Your task to perform on an android device: stop showing notifications on the lock screen Image 0: 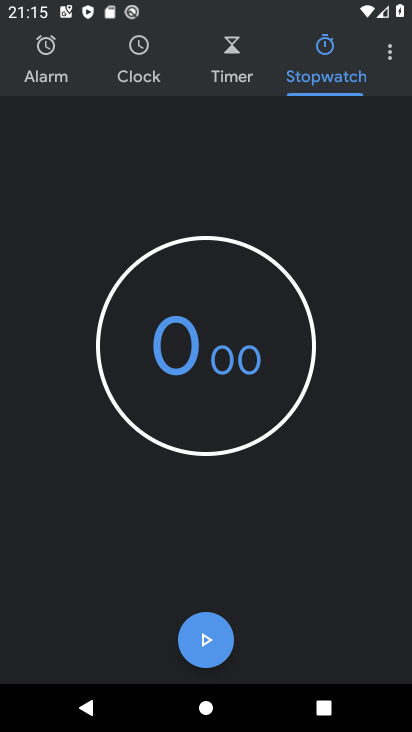
Step 0: press home button
Your task to perform on an android device: stop showing notifications on the lock screen Image 1: 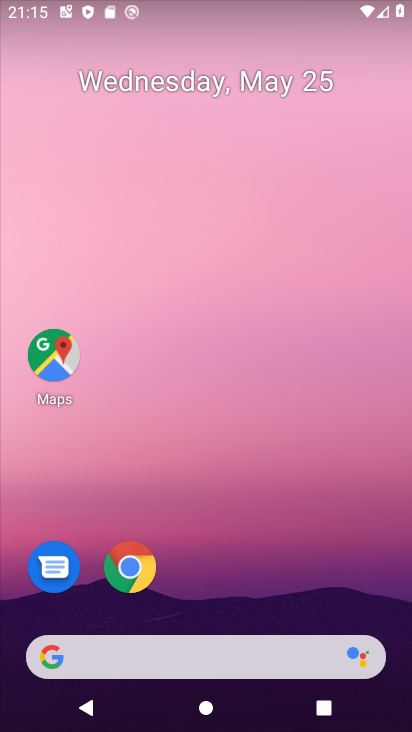
Step 1: drag from (191, 542) to (206, 67)
Your task to perform on an android device: stop showing notifications on the lock screen Image 2: 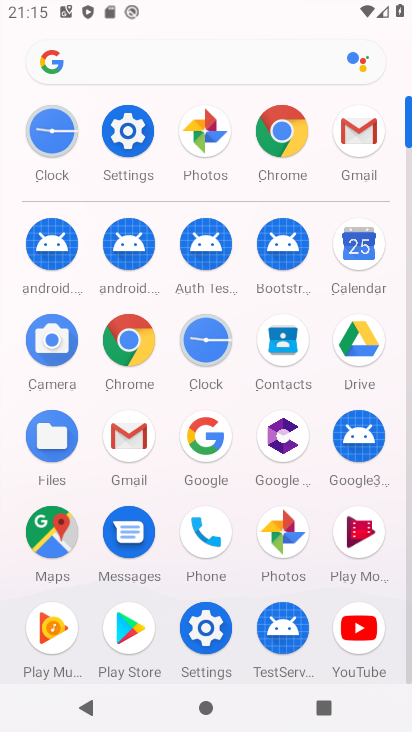
Step 2: click (145, 115)
Your task to perform on an android device: stop showing notifications on the lock screen Image 3: 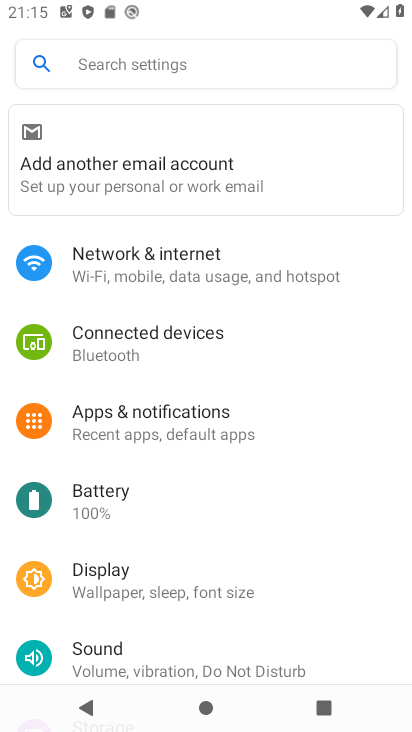
Step 3: click (142, 406)
Your task to perform on an android device: stop showing notifications on the lock screen Image 4: 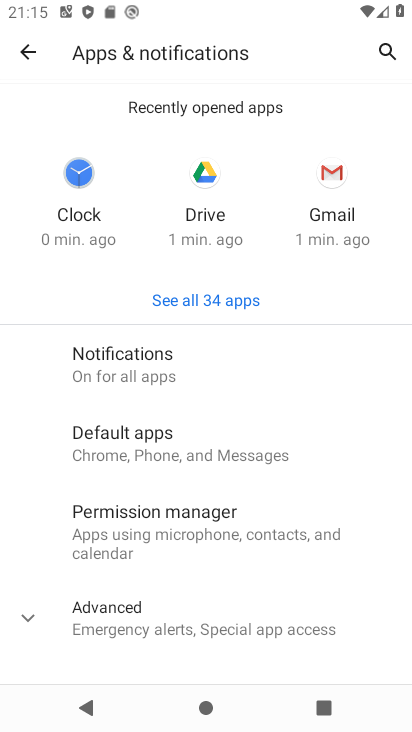
Step 4: click (158, 359)
Your task to perform on an android device: stop showing notifications on the lock screen Image 5: 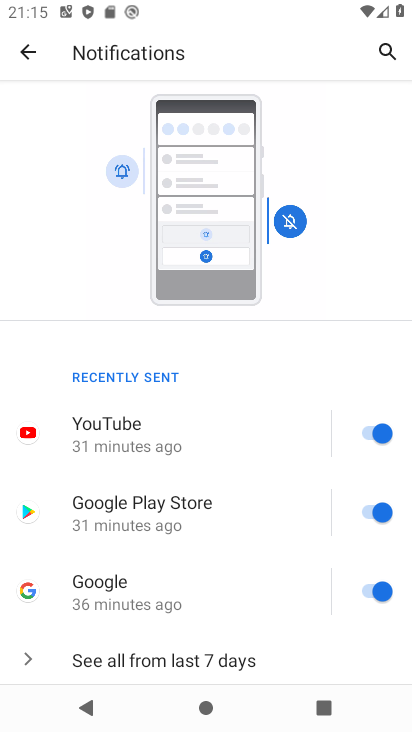
Step 5: drag from (183, 529) to (240, 215)
Your task to perform on an android device: stop showing notifications on the lock screen Image 6: 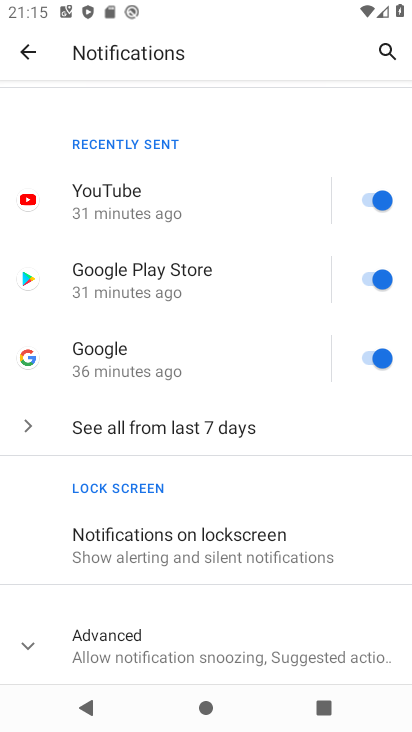
Step 6: click (212, 537)
Your task to perform on an android device: stop showing notifications on the lock screen Image 7: 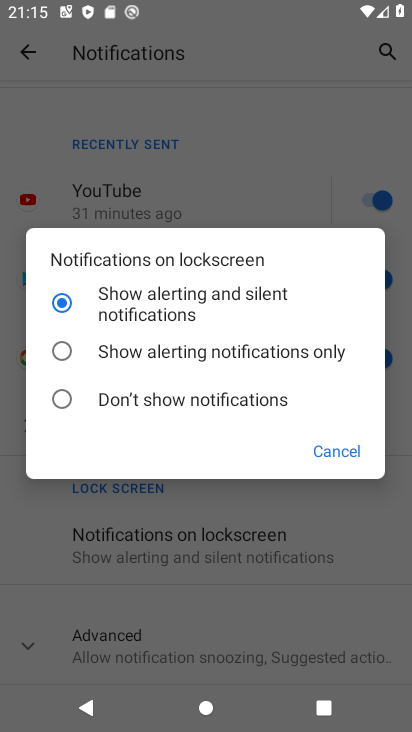
Step 7: click (53, 395)
Your task to perform on an android device: stop showing notifications on the lock screen Image 8: 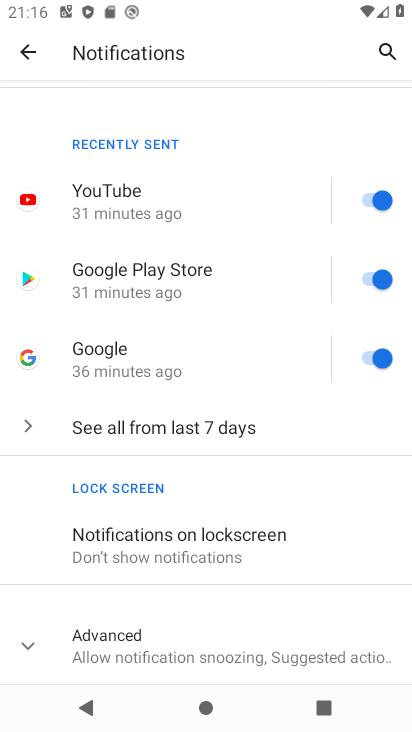
Step 8: task complete